Your task to perform on an android device: Find coffee shops on Maps Image 0: 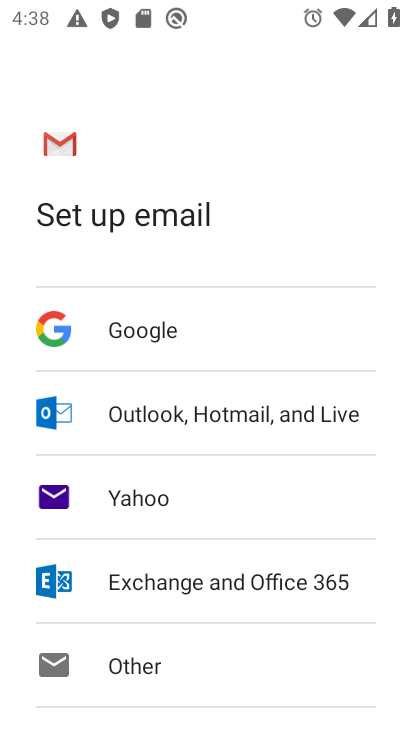
Step 0: press home button
Your task to perform on an android device: Find coffee shops on Maps Image 1: 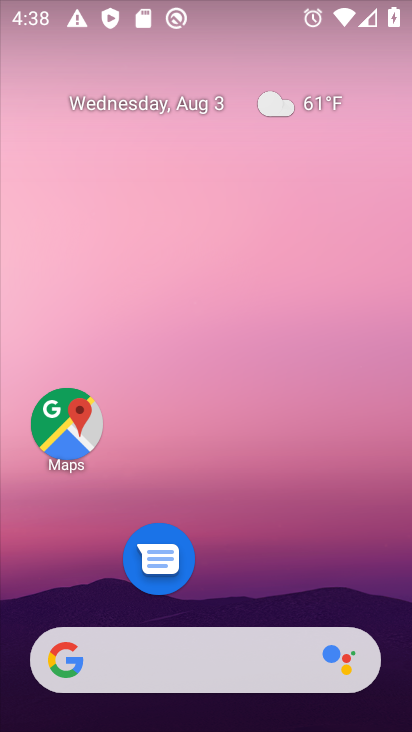
Step 1: drag from (251, 627) to (212, 268)
Your task to perform on an android device: Find coffee shops on Maps Image 2: 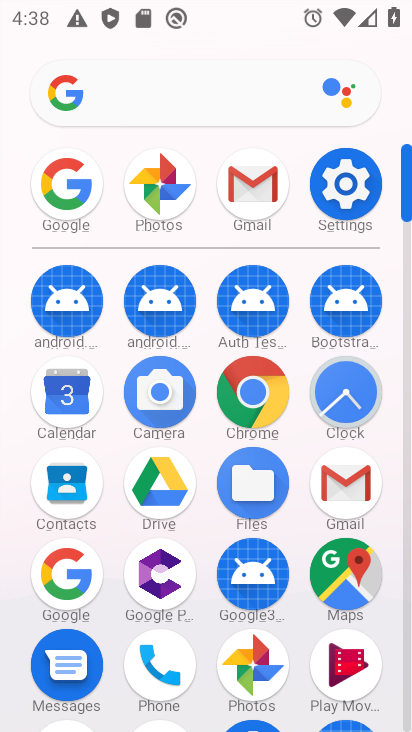
Step 2: click (343, 589)
Your task to perform on an android device: Find coffee shops on Maps Image 3: 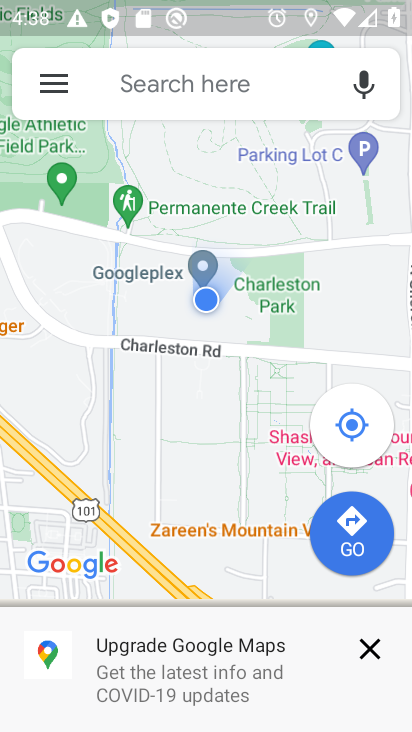
Step 3: click (166, 93)
Your task to perform on an android device: Find coffee shops on Maps Image 4: 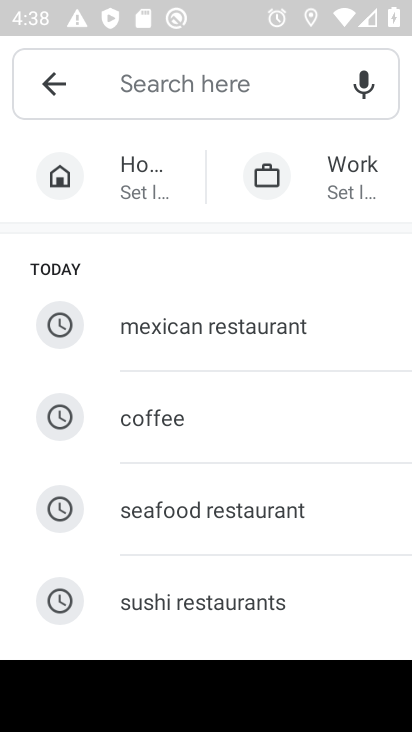
Step 4: click (156, 427)
Your task to perform on an android device: Find coffee shops on Maps Image 5: 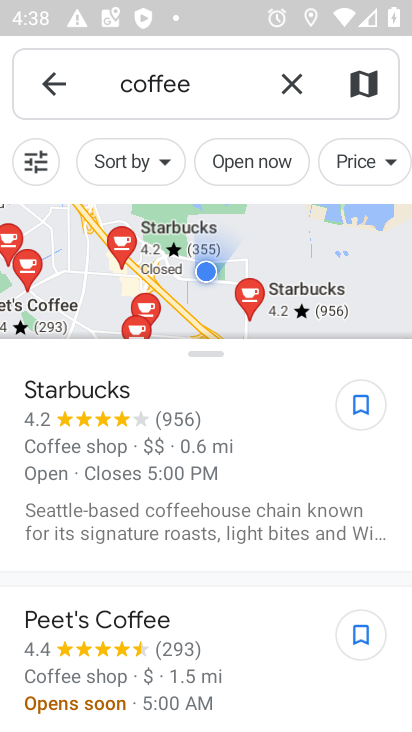
Step 5: task complete